Your task to perform on an android device: Open notification settings Image 0: 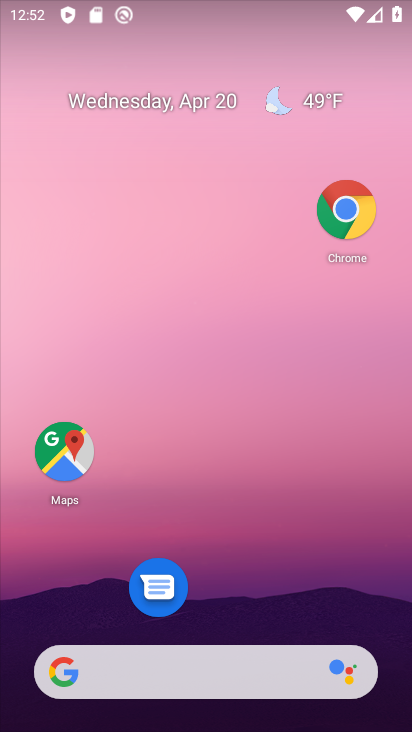
Step 0: drag from (243, 540) to (307, 42)
Your task to perform on an android device: Open notification settings Image 1: 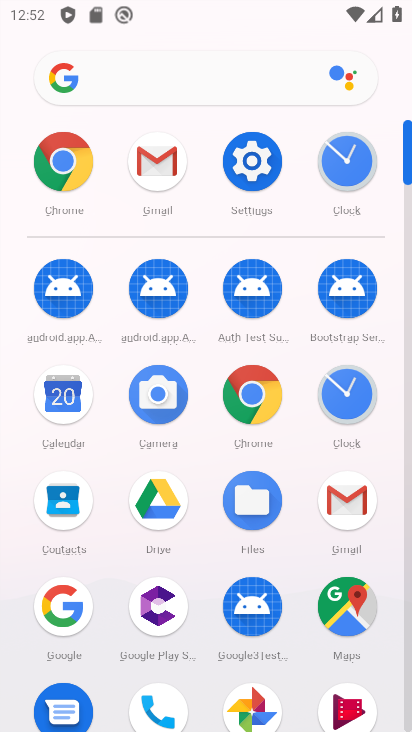
Step 1: click (262, 163)
Your task to perform on an android device: Open notification settings Image 2: 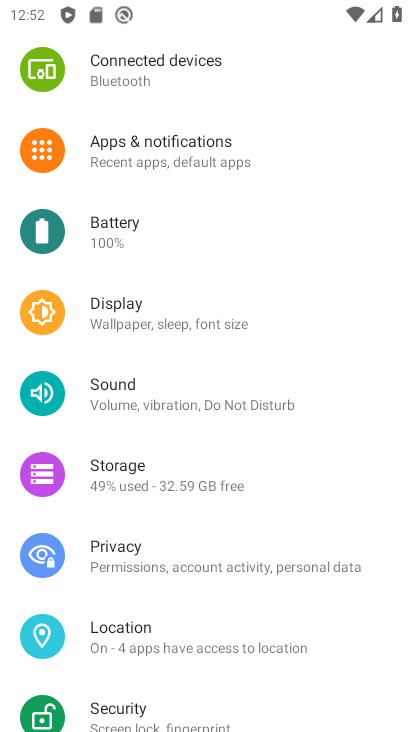
Step 2: click (203, 169)
Your task to perform on an android device: Open notification settings Image 3: 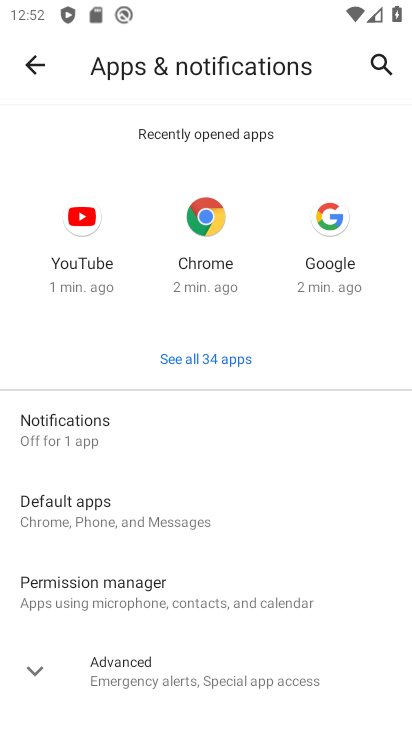
Step 3: click (84, 441)
Your task to perform on an android device: Open notification settings Image 4: 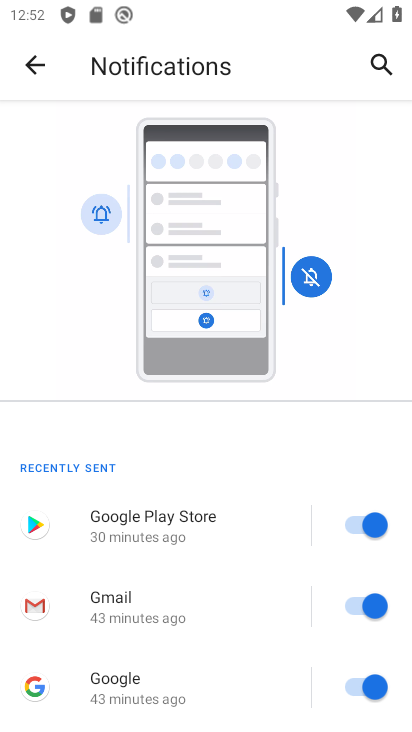
Step 4: task complete